Your task to perform on an android device: open app "Viber Messenger" (install if not already installed) Image 0: 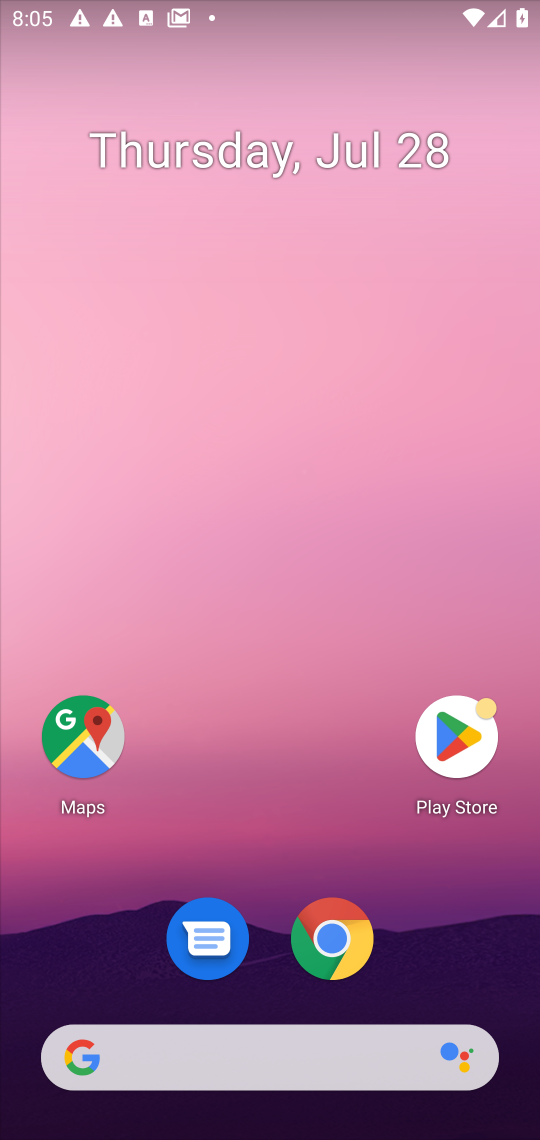
Step 0: click (491, 762)
Your task to perform on an android device: open app "Viber Messenger" (install if not already installed) Image 1: 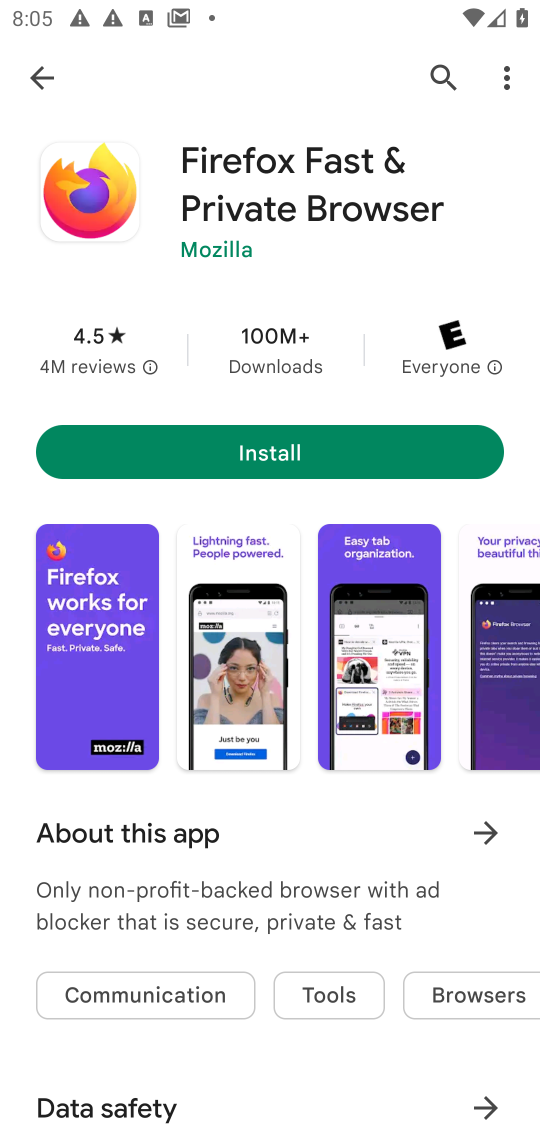
Step 1: click (443, 62)
Your task to perform on an android device: open app "Viber Messenger" (install if not already installed) Image 2: 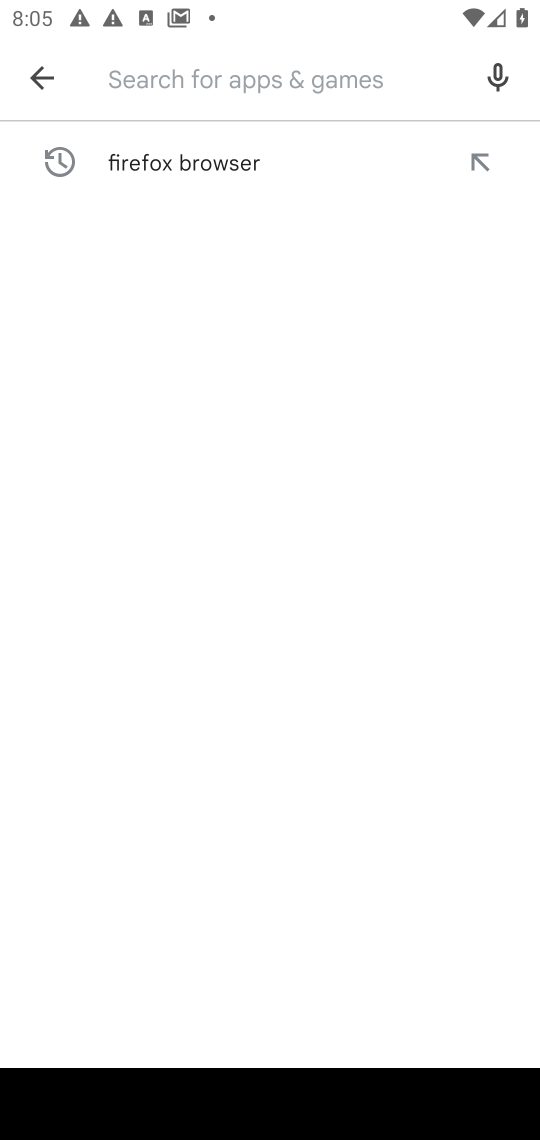
Step 2: click (440, 66)
Your task to perform on an android device: open app "Viber Messenger" (install if not already installed) Image 3: 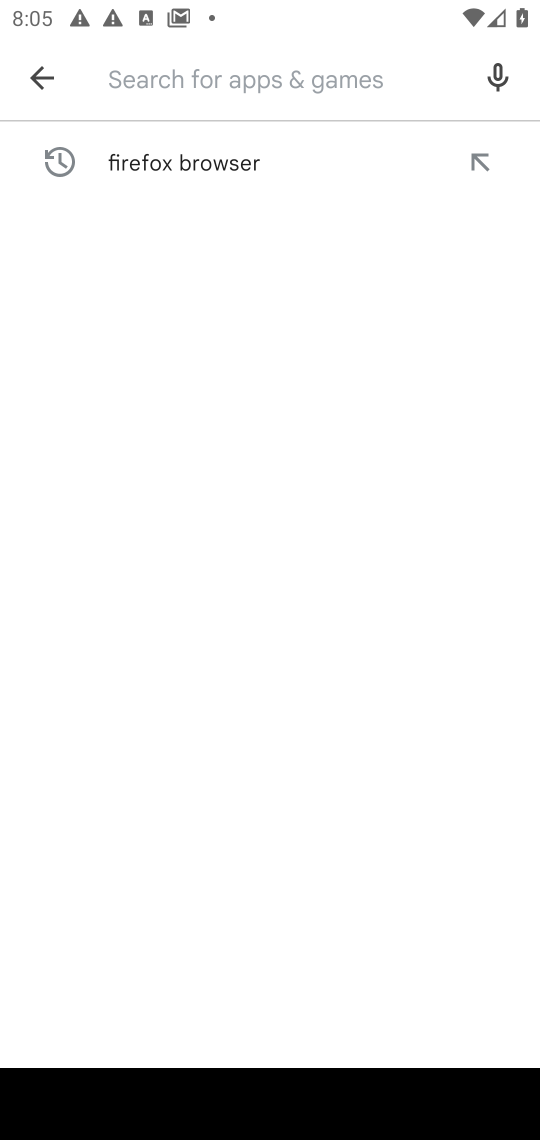
Step 3: type "Viber Messenger"
Your task to perform on an android device: open app "Viber Messenger" (install if not already installed) Image 4: 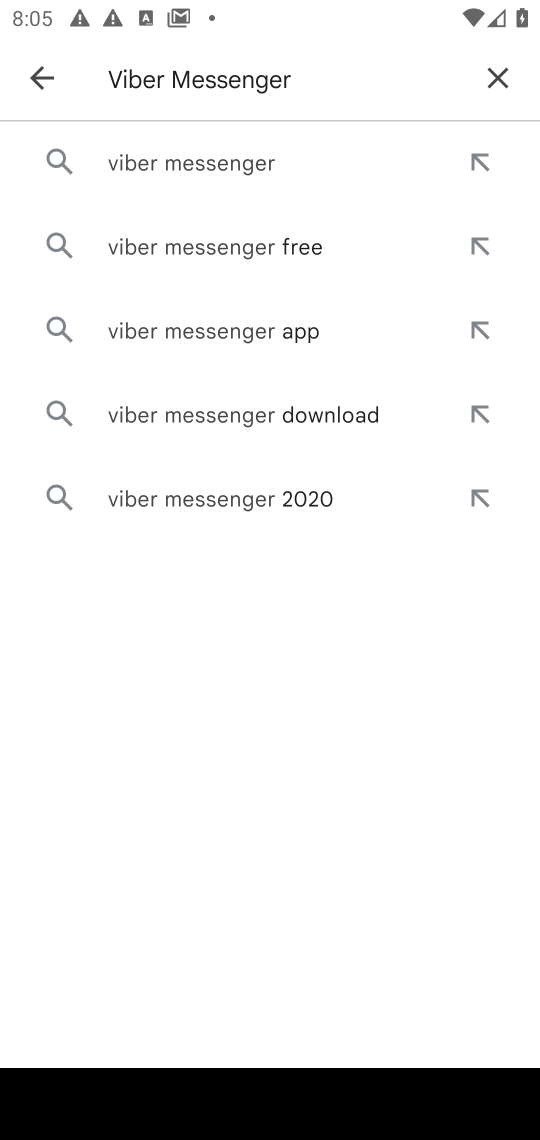
Step 4: click (253, 145)
Your task to perform on an android device: open app "Viber Messenger" (install if not already installed) Image 5: 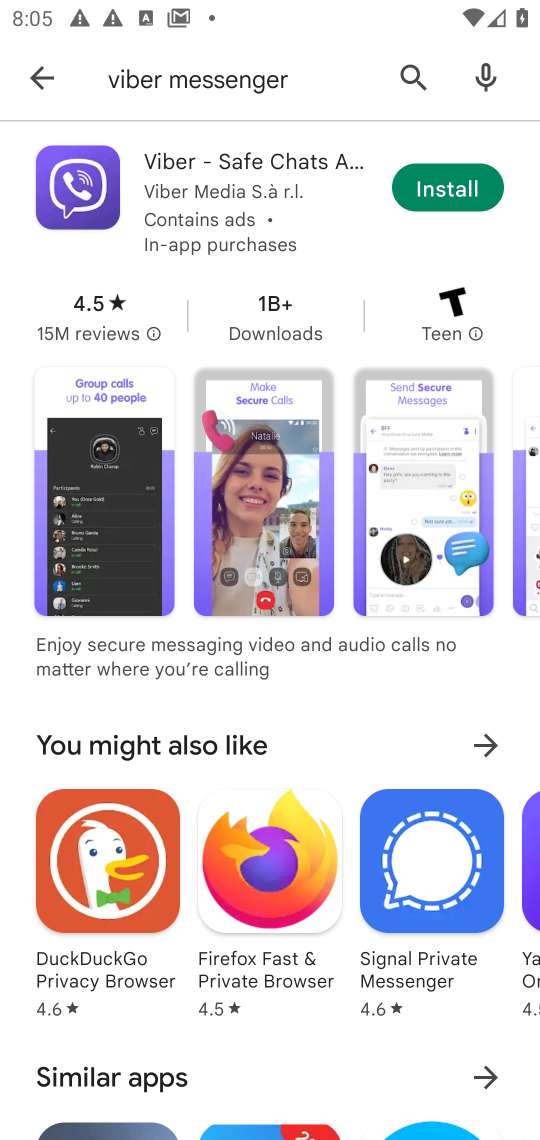
Step 5: click (429, 185)
Your task to perform on an android device: open app "Viber Messenger" (install if not already installed) Image 6: 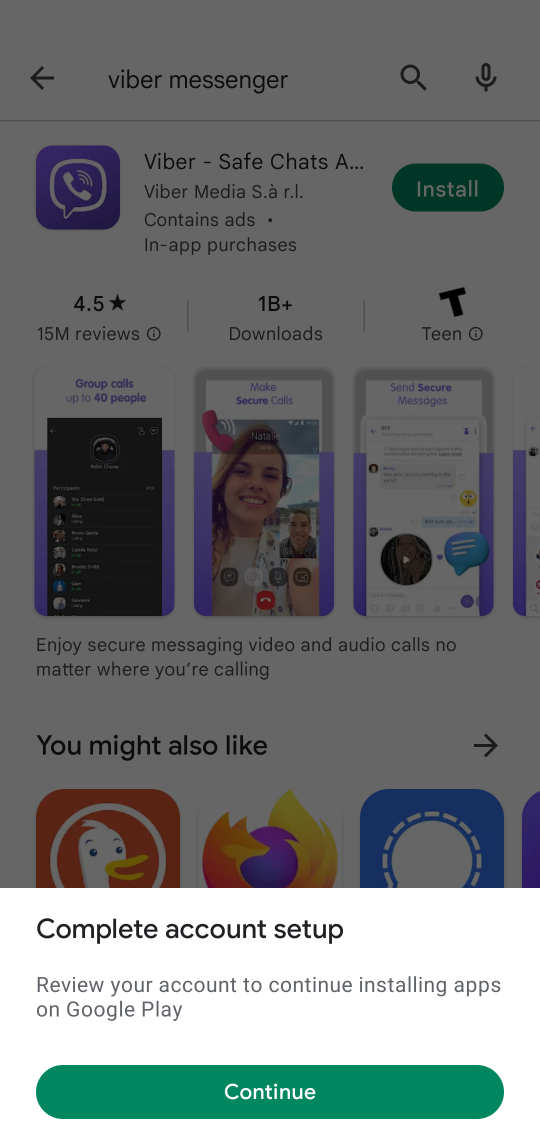
Step 6: click (365, 1081)
Your task to perform on an android device: open app "Viber Messenger" (install if not already installed) Image 7: 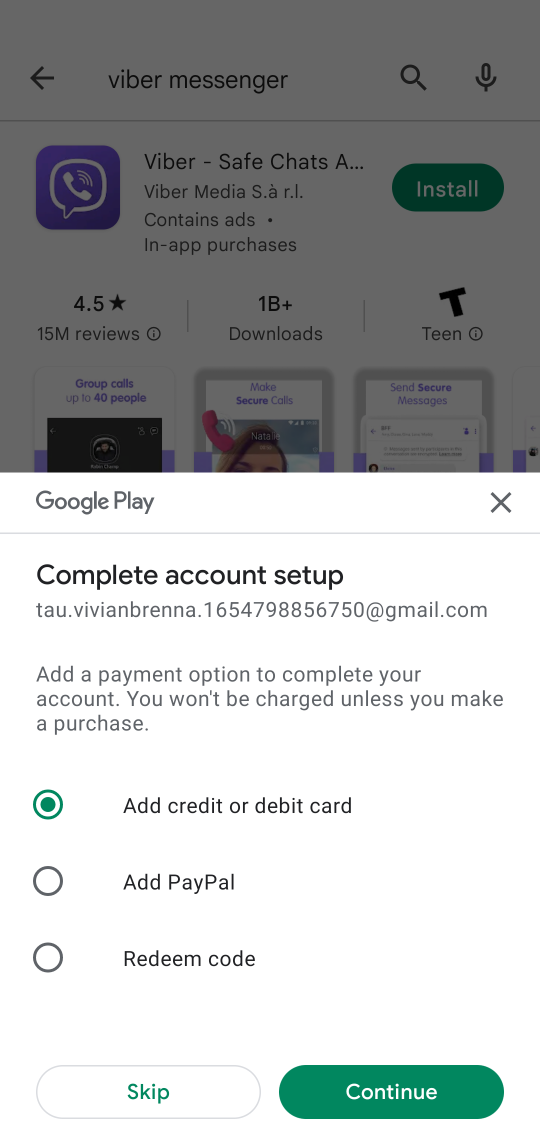
Step 7: click (195, 1087)
Your task to perform on an android device: open app "Viber Messenger" (install if not already installed) Image 8: 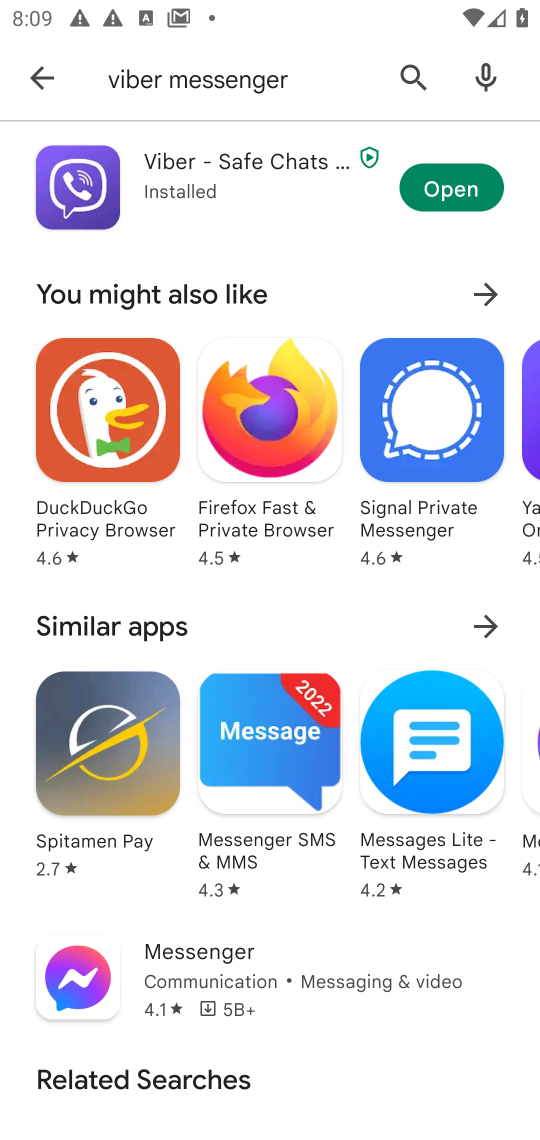
Step 8: click (431, 190)
Your task to perform on an android device: open app "Viber Messenger" (install if not already installed) Image 9: 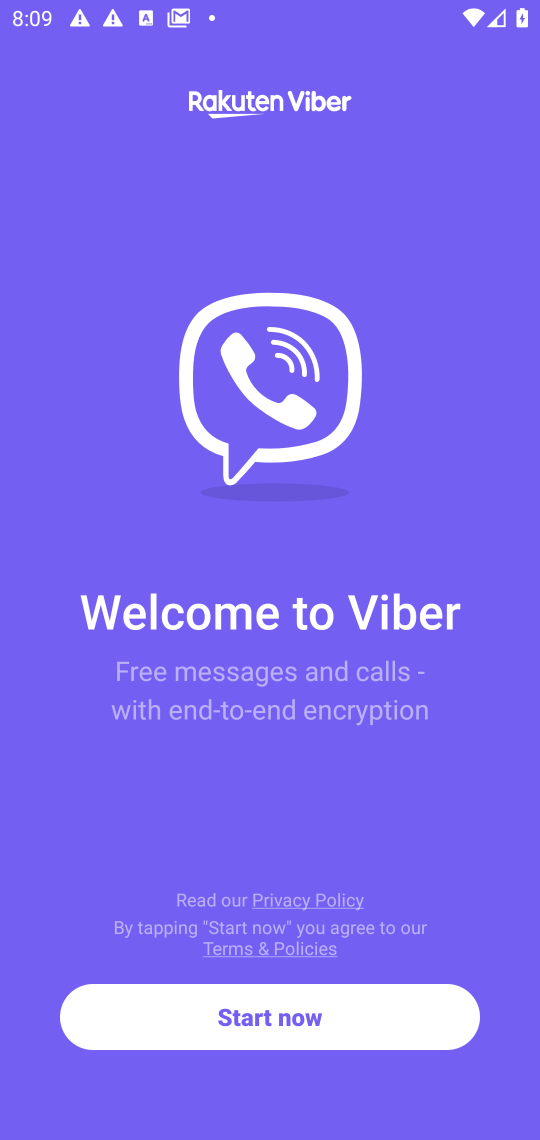
Step 9: task complete